Your task to perform on an android device: Open my contact list Image 0: 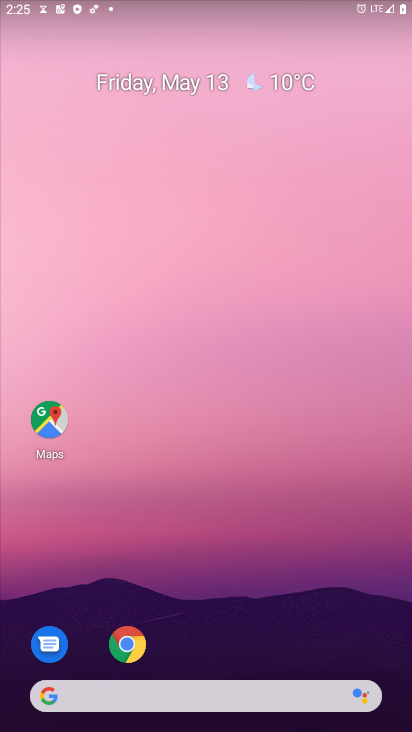
Step 0: drag from (214, 727) to (214, 229)
Your task to perform on an android device: Open my contact list Image 1: 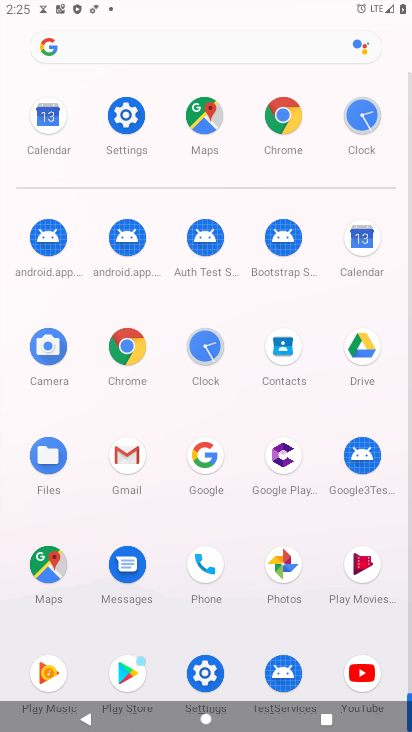
Step 1: click (284, 347)
Your task to perform on an android device: Open my contact list Image 2: 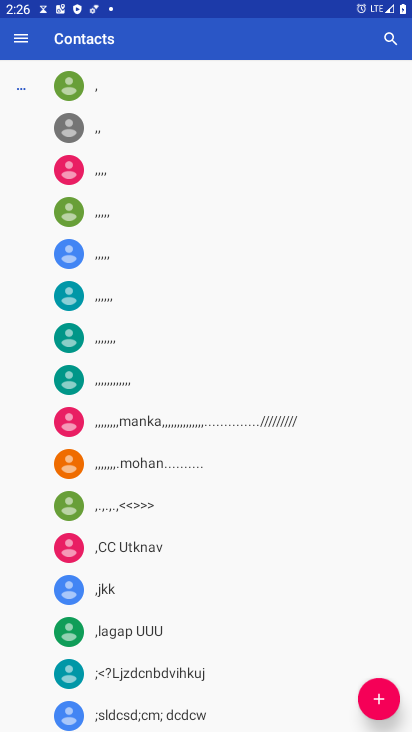
Step 2: task complete